Your task to perform on an android device: turn on notifications settings in the gmail app Image 0: 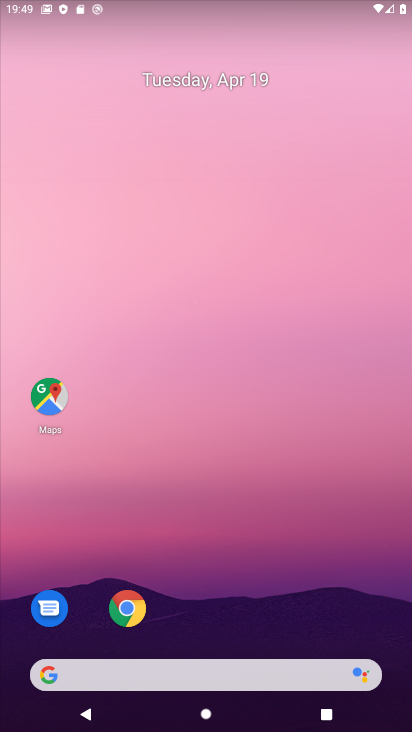
Step 0: drag from (296, 597) to (267, 90)
Your task to perform on an android device: turn on notifications settings in the gmail app Image 1: 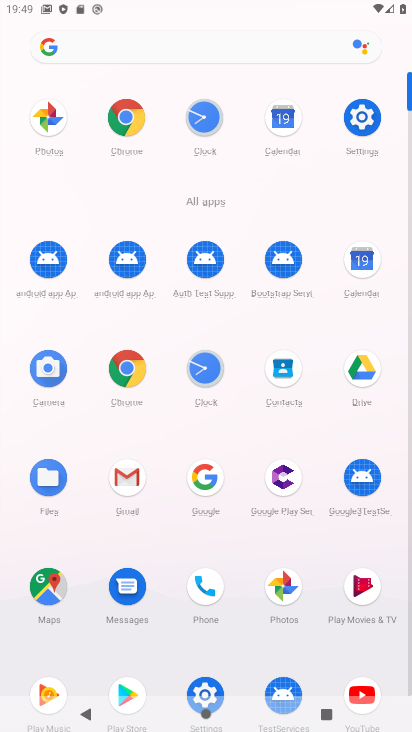
Step 1: click (123, 490)
Your task to perform on an android device: turn on notifications settings in the gmail app Image 2: 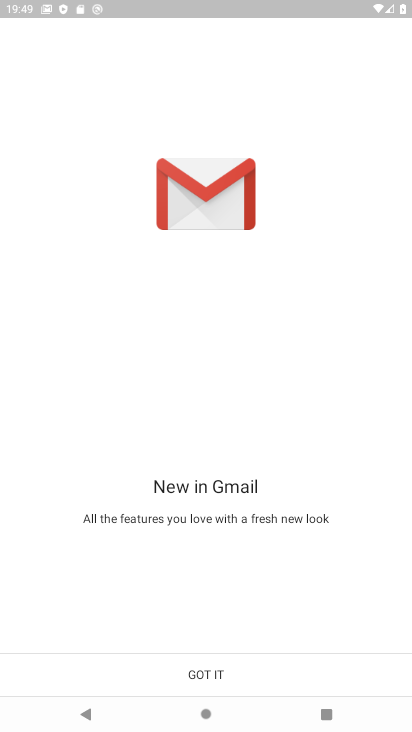
Step 2: click (180, 670)
Your task to perform on an android device: turn on notifications settings in the gmail app Image 3: 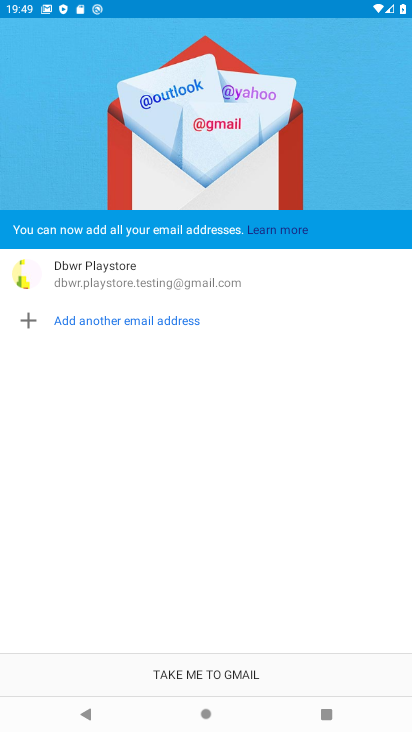
Step 3: click (180, 670)
Your task to perform on an android device: turn on notifications settings in the gmail app Image 4: 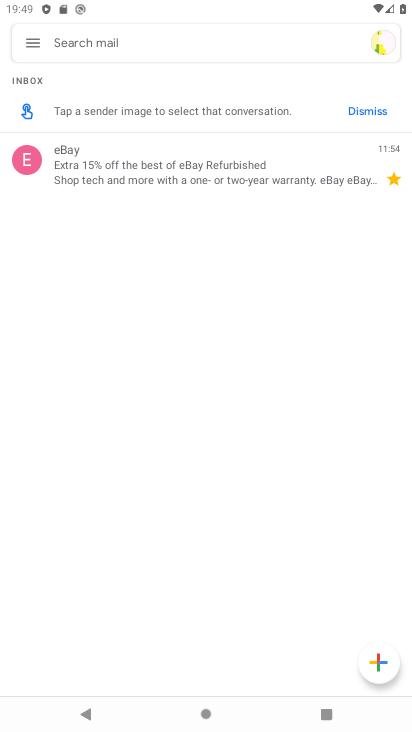
Step 4: click (33, 46)
Your task to perform on an android device: turn on notifications settings in the gmail app Image 5: 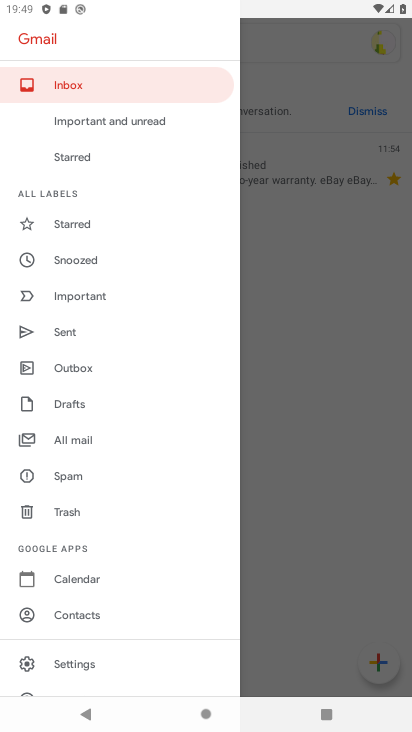
Step 5: click (83, 666)
Your task to perform on an android device: turn on notifications settings in the gmail app Image 6: 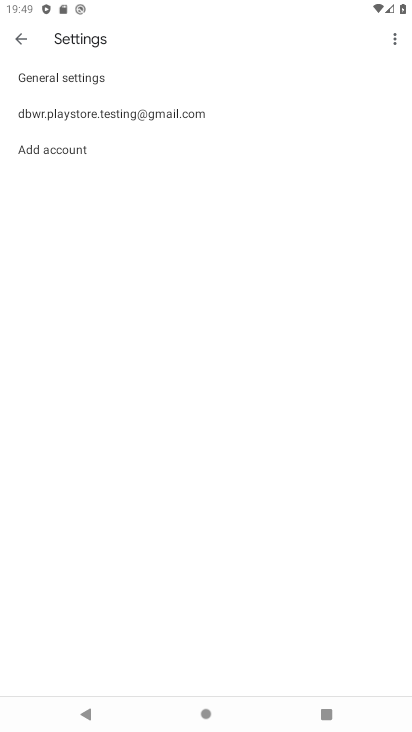
Step 6: click (199, 71)
Your task to perform on an android device: turn on notifications settings in the gmail app Image 7: 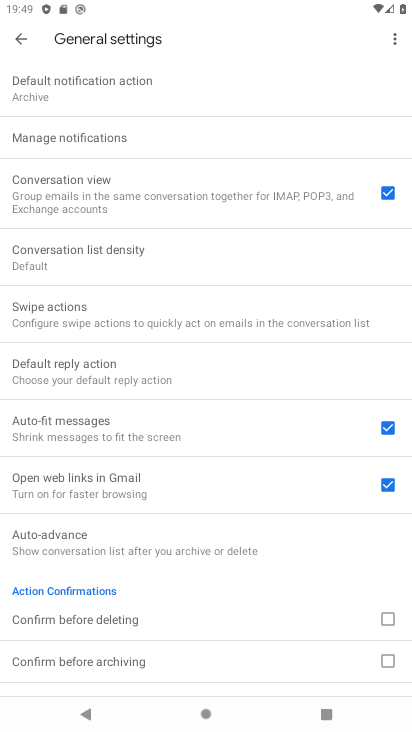
Step 7: click (224, 151)
Your task to perform on an android device: turn on notifications settings in the gmail app Image 8: 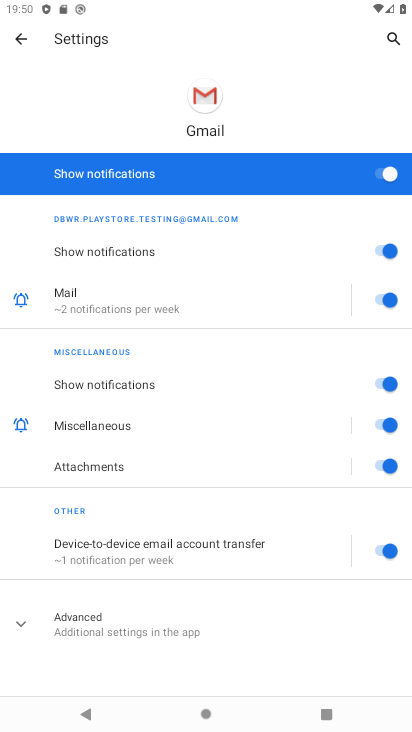
Step 8: task complete